Your task to perform on an android device: read, delete, or share a saved page in the chrome app Image 0: 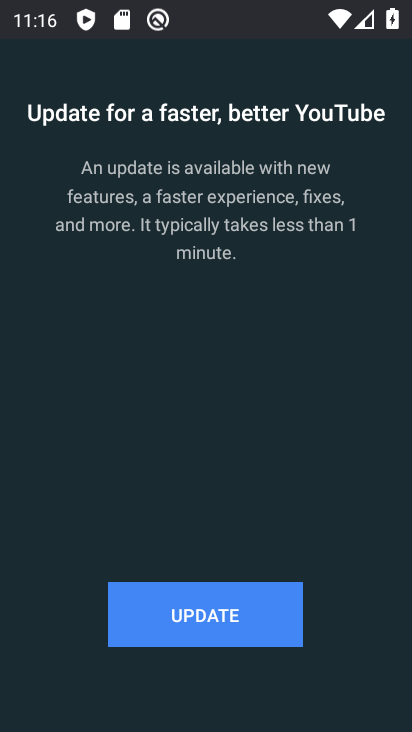
Step 0: press home button
Your task to perform on an android device: read, delete, or share a saved page in the chrome app Image 1: 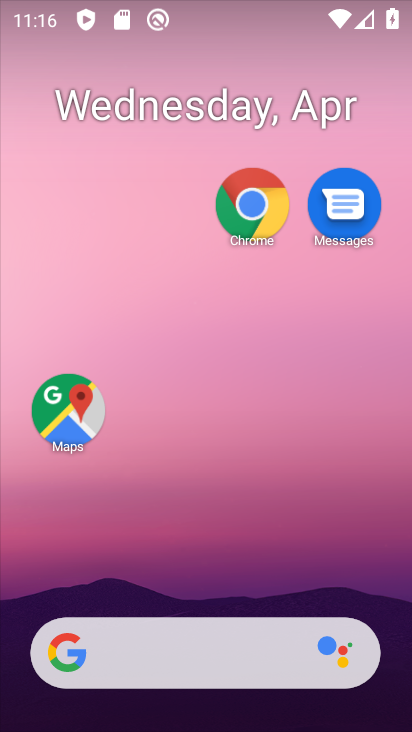
Step 1: click (246, 216)
Your task to perform on an android device: read, delete, or share a saved page in the chrome app Image 2: 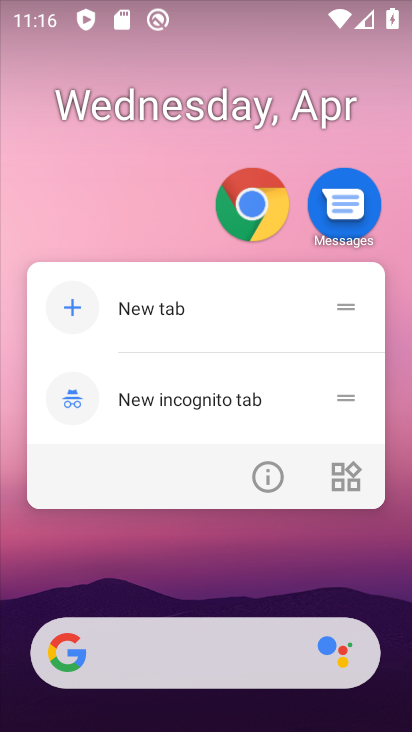
Step 2: click (266, 189)
Your task to perform on an android device: read, delete, or share a saved page in the chrome app Image 3: 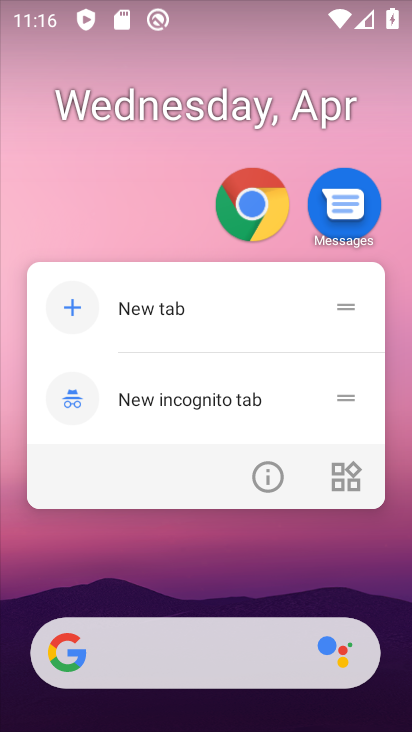
Step 3: click (268, 218)
Your task to perform on an android device: read, delete, or share a saved page in the chrome app Image 4: 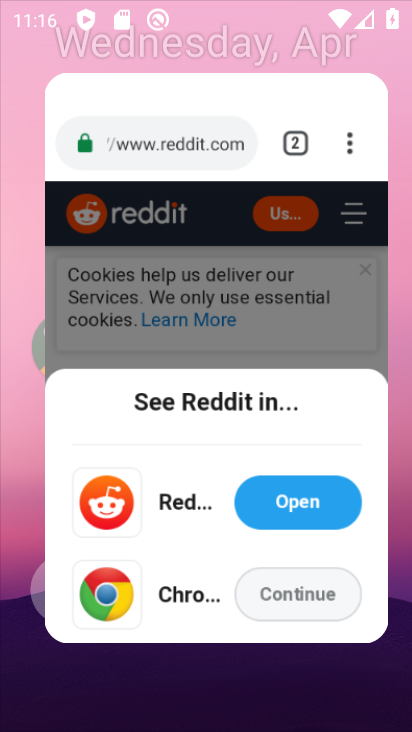
Step 4: click (268, 218)
Your task to perform on an android device: read, delete, or share a saved page in the chrome app Image 5: 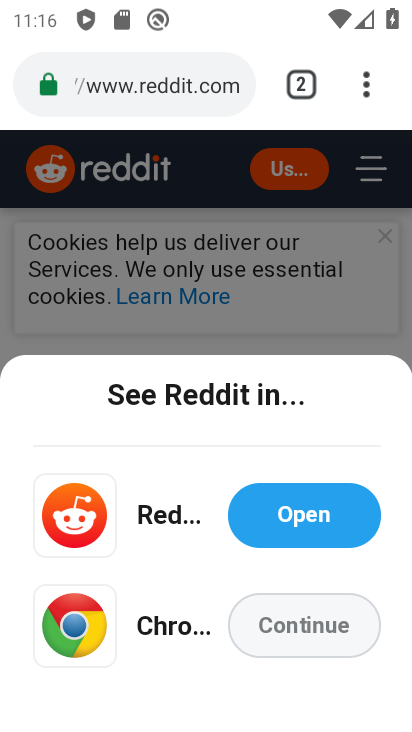
Step 5: click (371, 85)
Your task to perform on an android device: read, delete, or share a saved page in the chrome app Image 6: 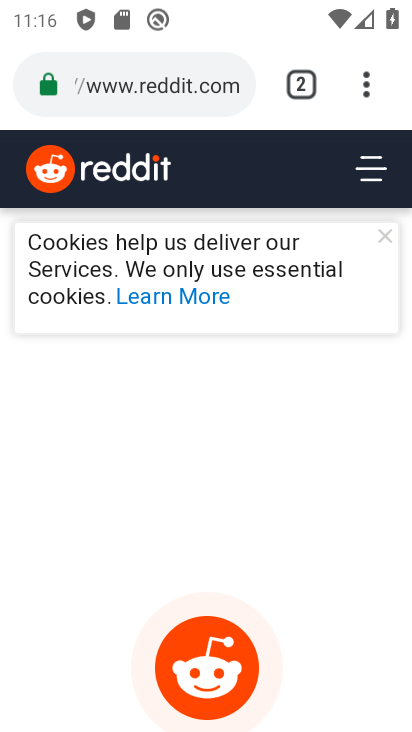
Step 6: task complete